Your task to perform on an android device: Go to sound settings Image 0: 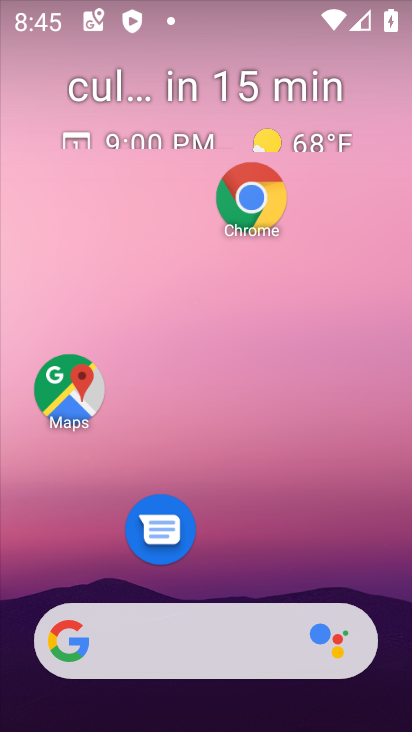
Step 0: drag from (221, 573) to (173, 15)
Your task to perform on an android device: Go to sound settings Image 1: 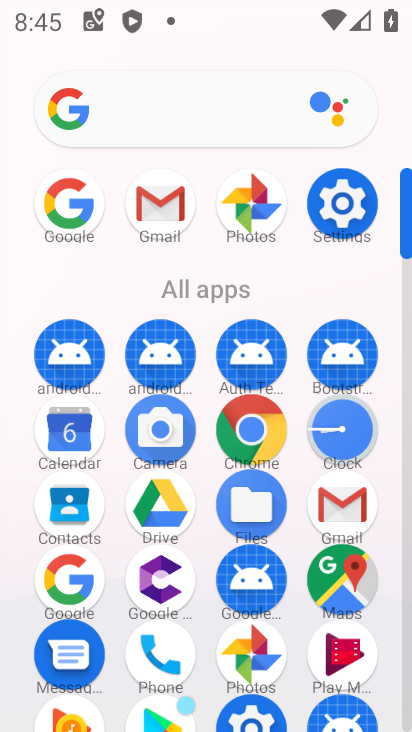
Step 1: click (329, 190)
Your task to perform on an android device: Go to sound settings Image 2: 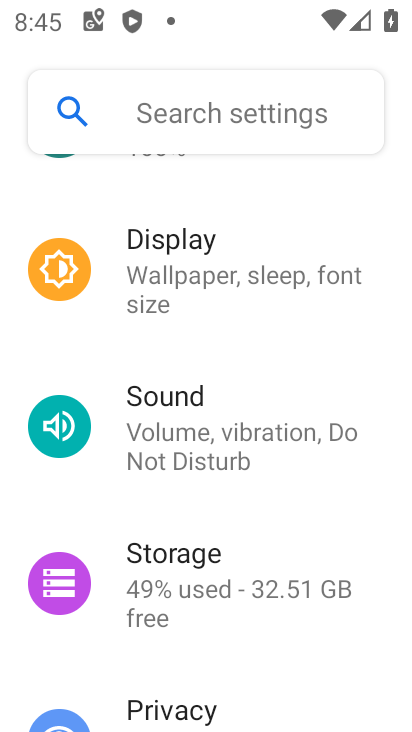
Step 2: click (232, 405)
Your task to perform on an android device: Go to sound settings Image 3: 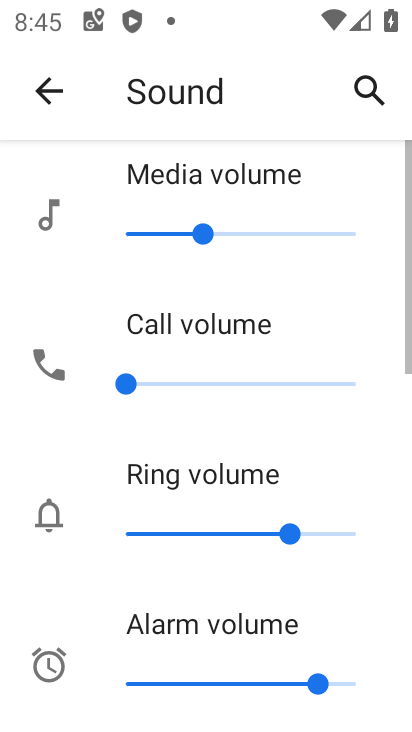
Step 3: task complete